Your task to perform on an android device: install app "Google Home" Image 0: 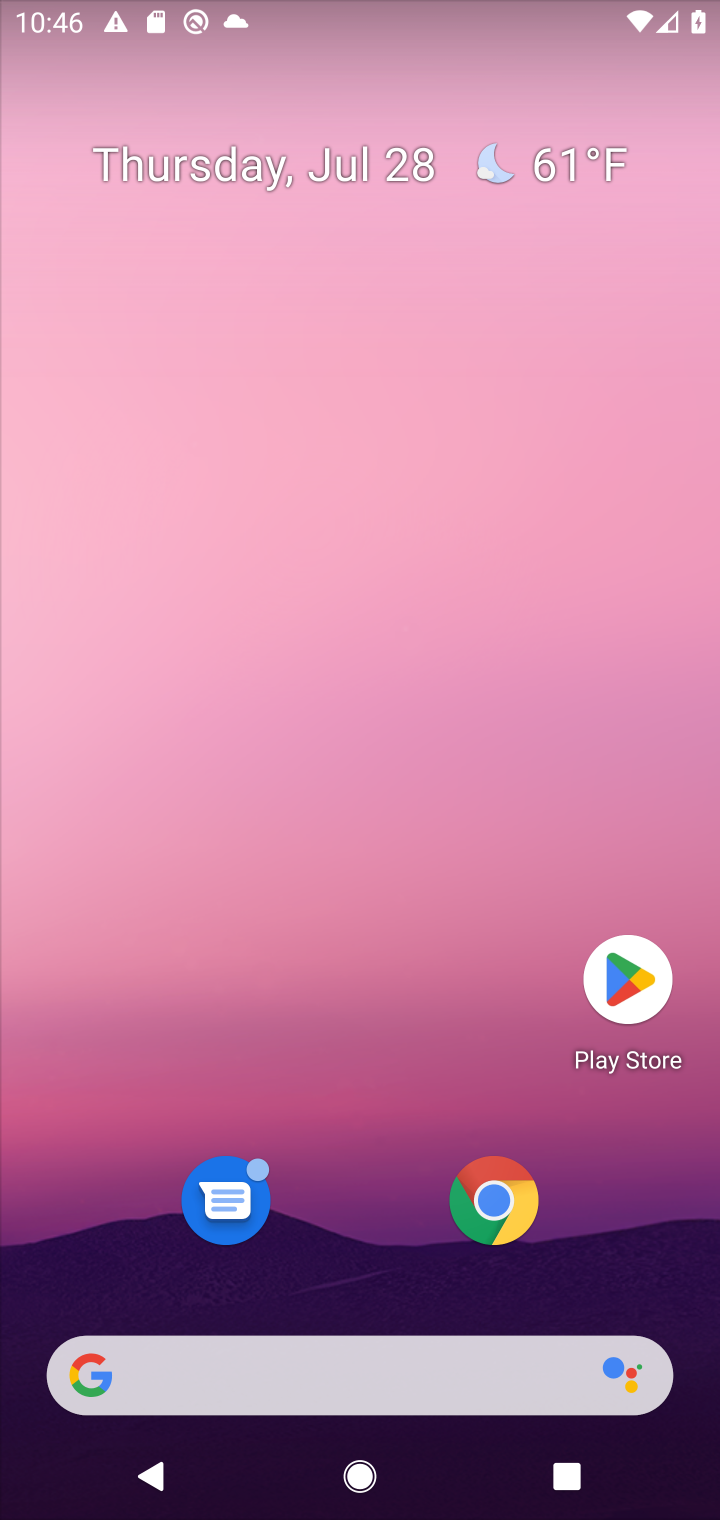
Step 0: click (629, 984)
Your task to perform on an android device: install app "Google Home" Image 1: 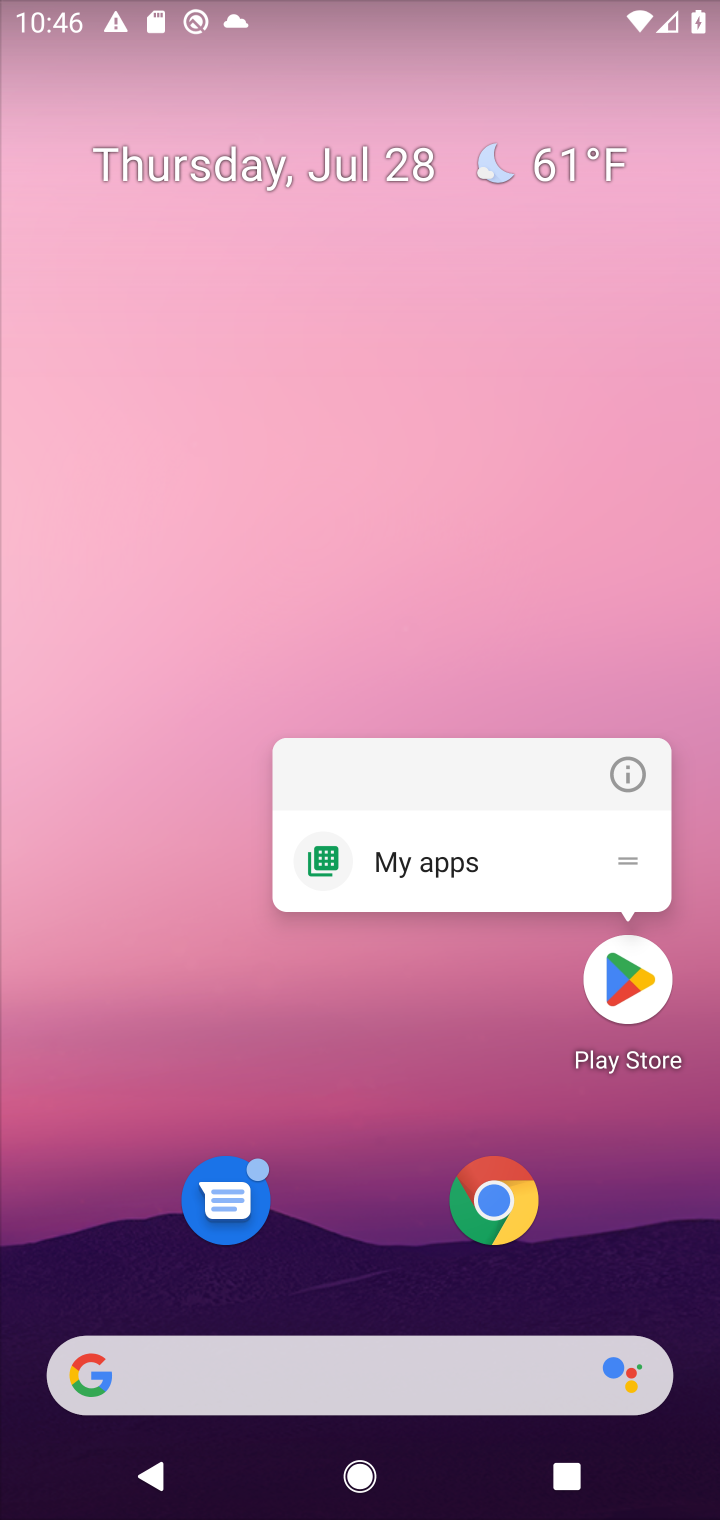
Step 1: click (625, 994)
Your task to perform on an android device: install app "Google Home" Image 2: 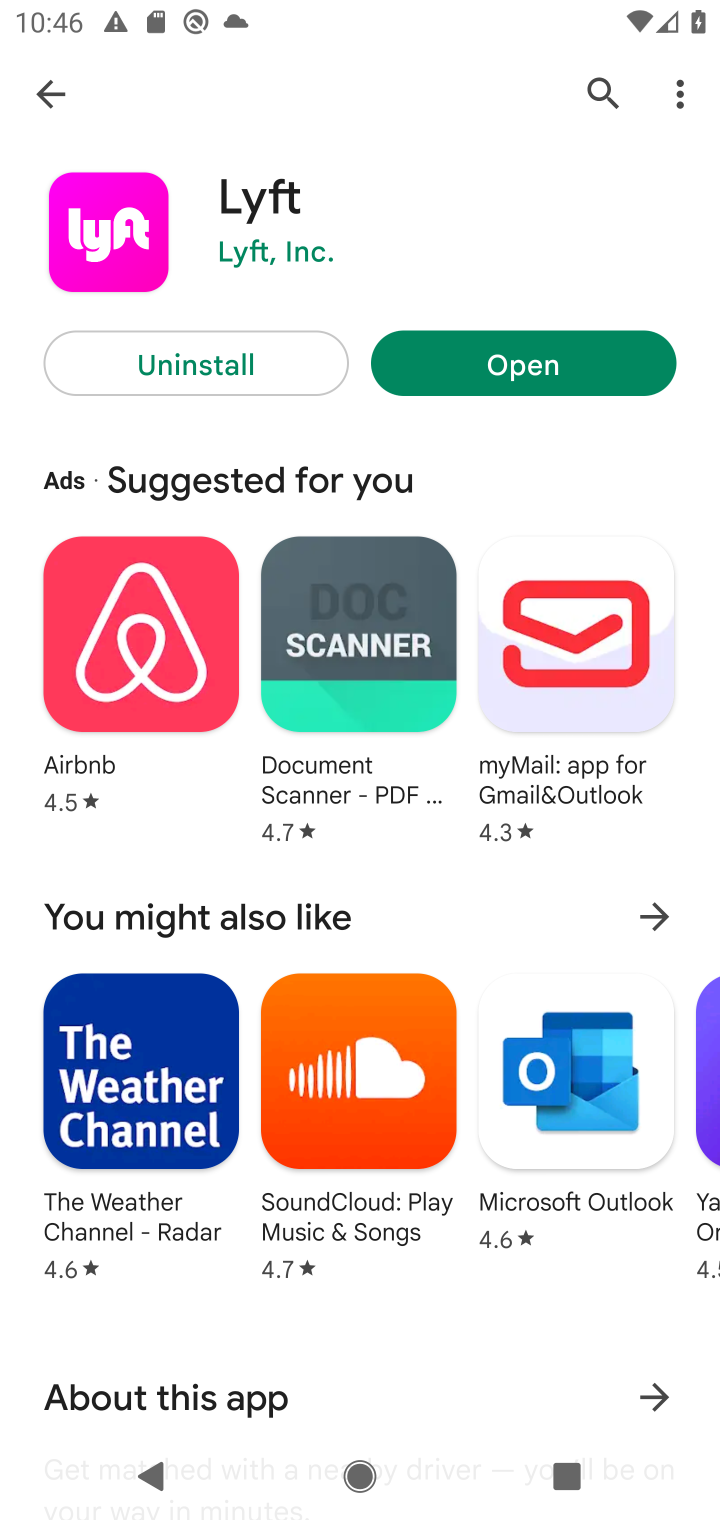
Step 2: click (593, 85)
Your task to perform on an android device: install app "Google Home" Image 3: 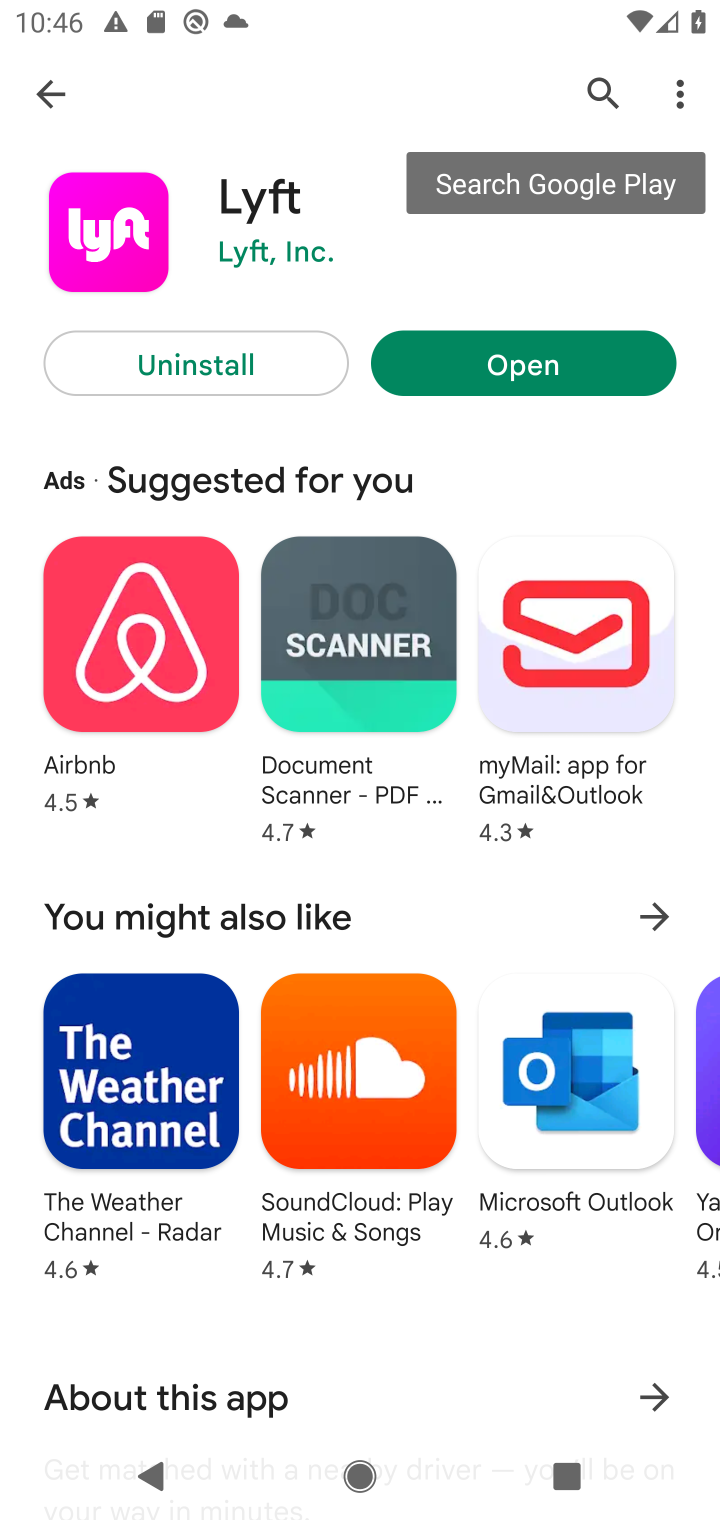
Step 3: click (593, 89)
Your task to perform on an android device: install app "Google Home" Image 4: 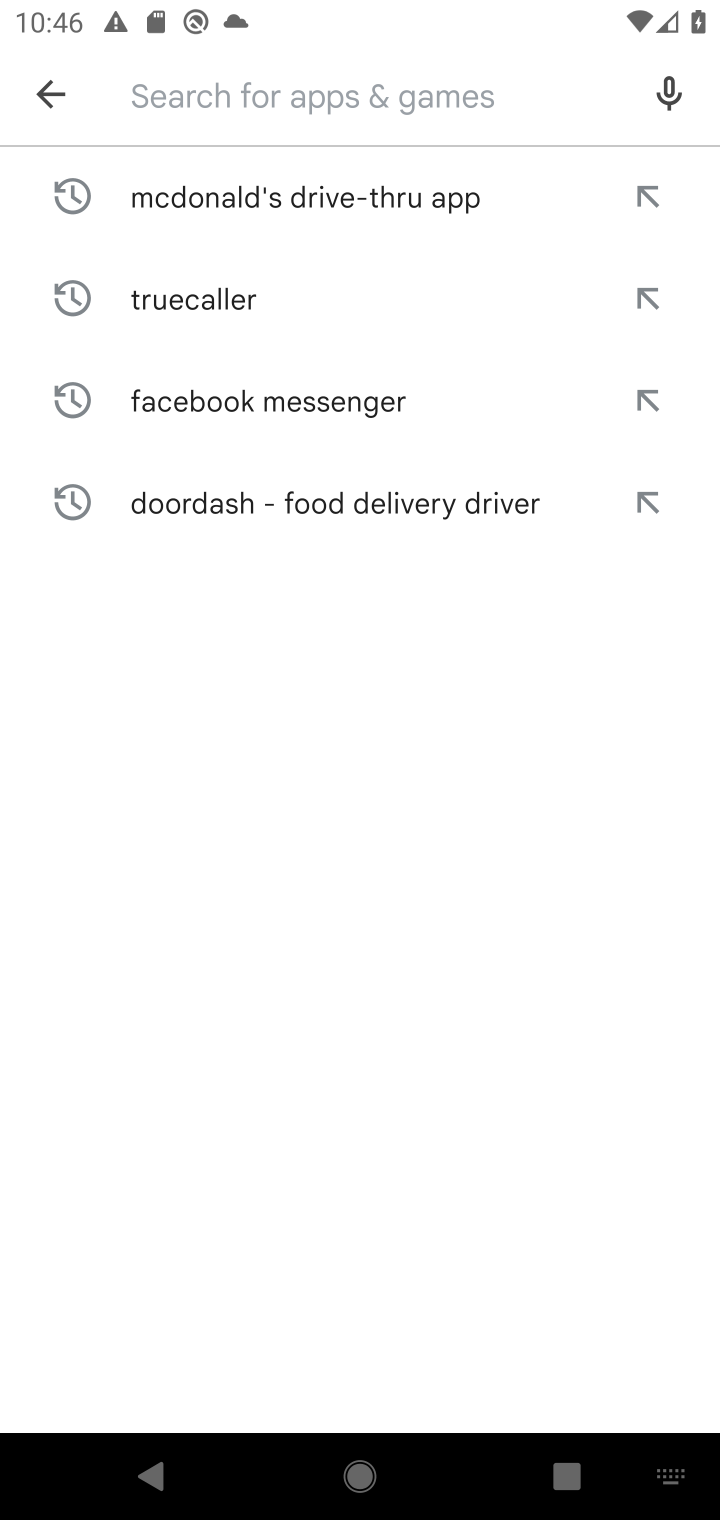
Step 4: type "Google Home"
Your task to perform on an android device: install app "Google Home" Image 5: 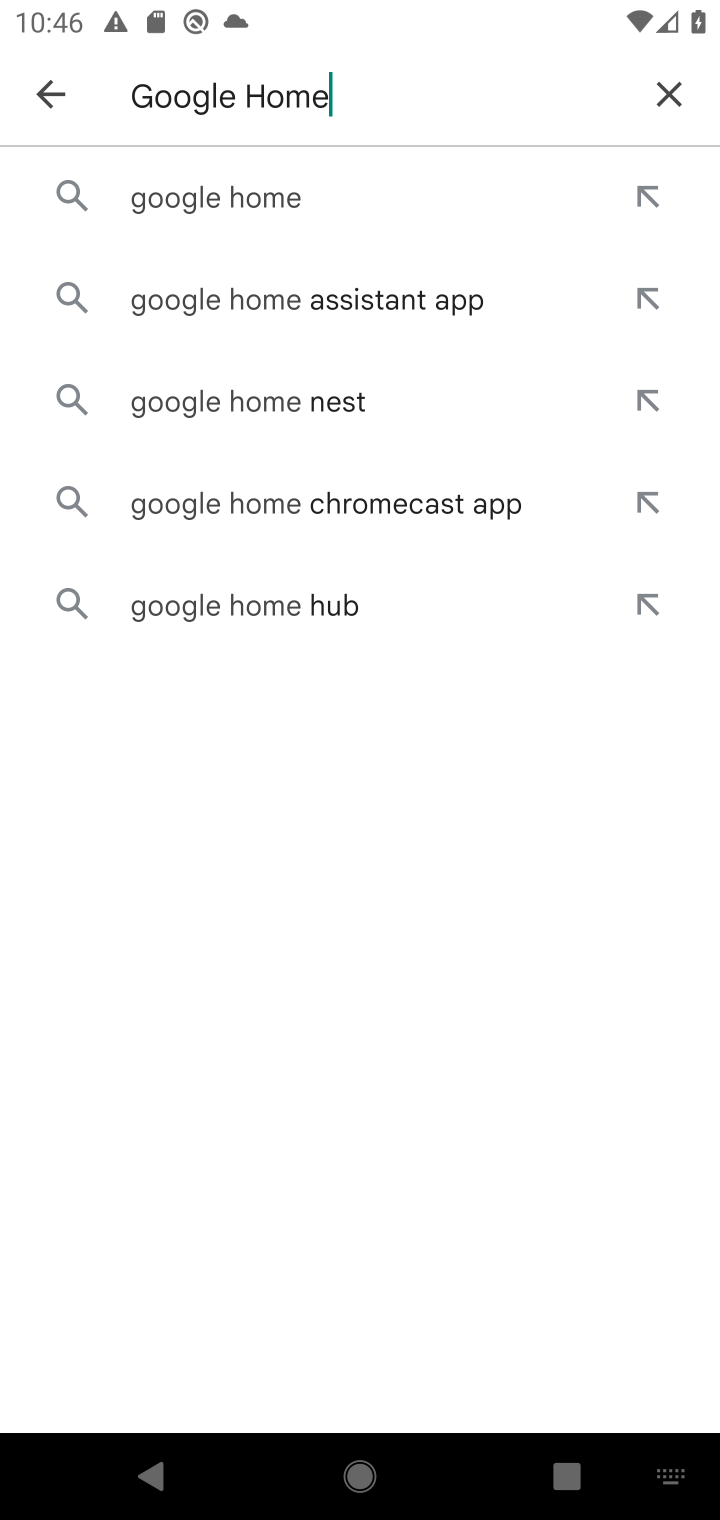
Step 5: click (251, 200)
Your task to perform on an android device: install app "Google Home" Image 6: 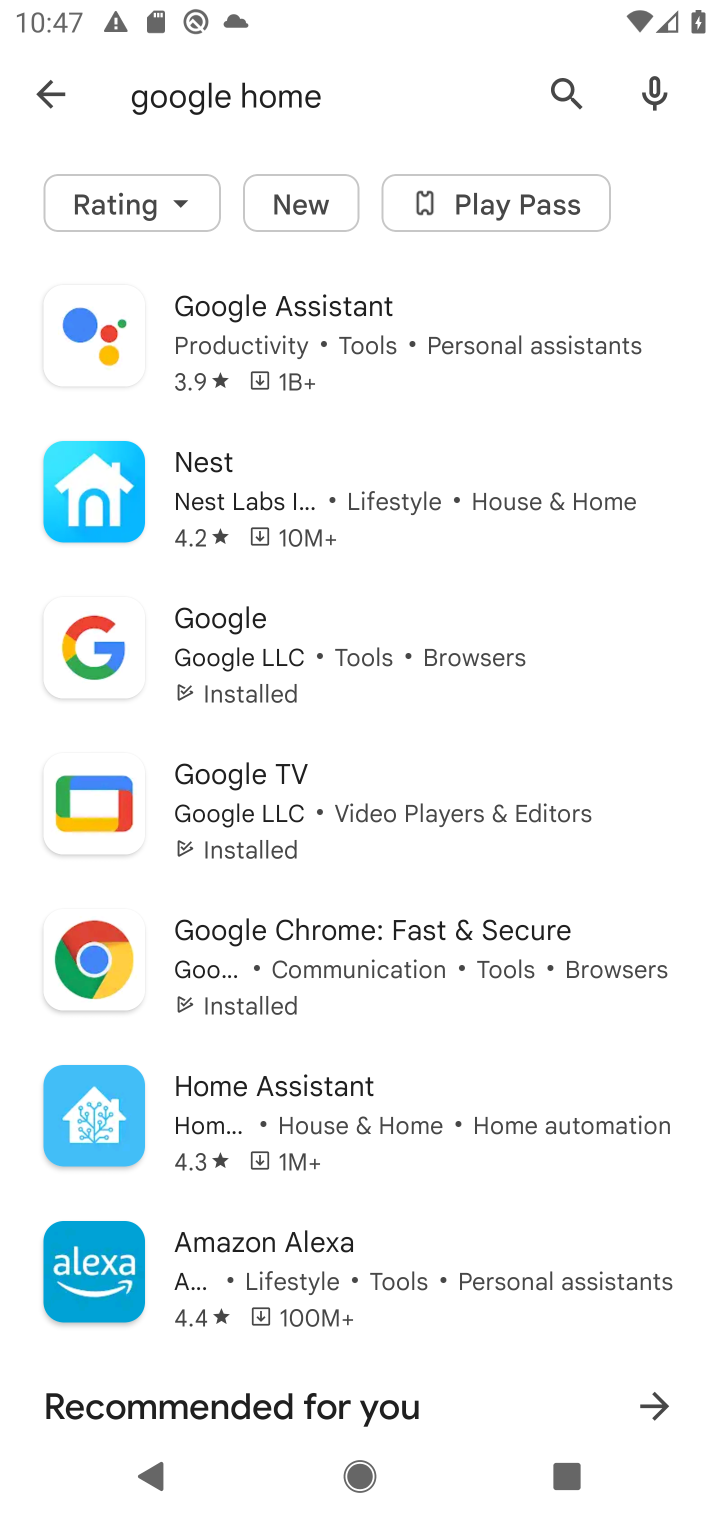
Step 6: task complete